Your task to perform on an android device: check the backup settings in the google photos Image 0: 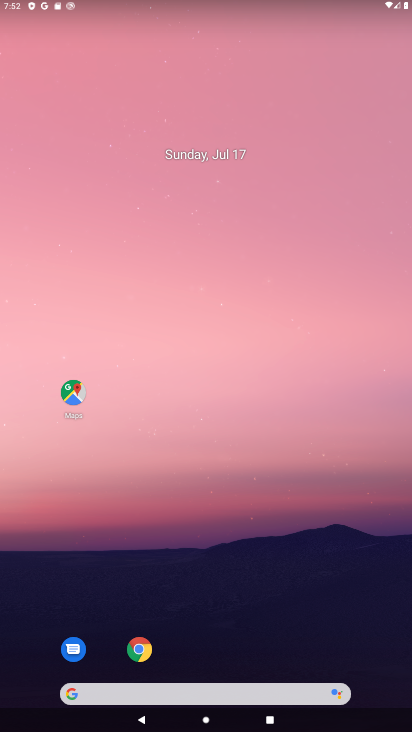
Step 0: drag from (239, 670) to (149, 6)
Your task to perform on an android device: check the backup settings in the google photos Image 1: 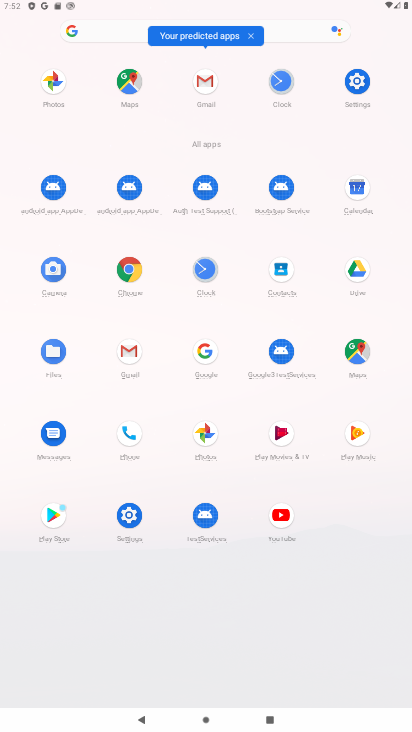
Step 1: click (207, 428)
Your task to perform on an android device: check the backup settings in the google photos Image 2: 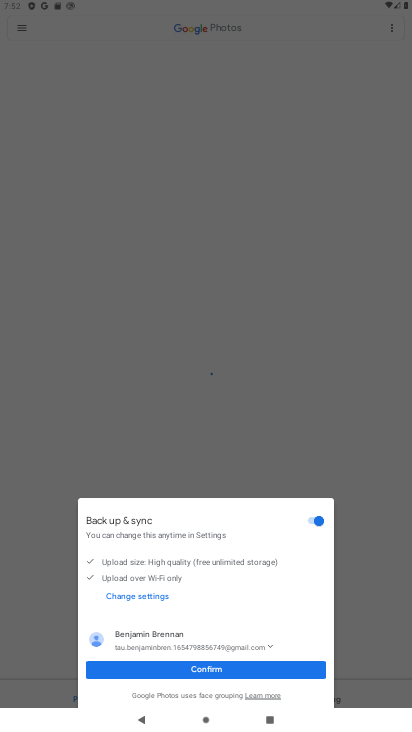
Step 2: drag from (205, 662) to (263, 662)
Your task to perform on an android device: check the backup settings in the google photos Image 3: 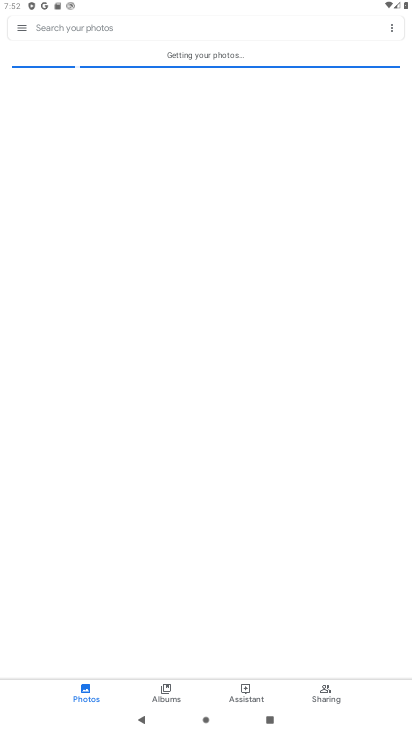
Step 3: click (21, 29)
Your task to perform on an android device: check the backup settings in the google photos Image 4: 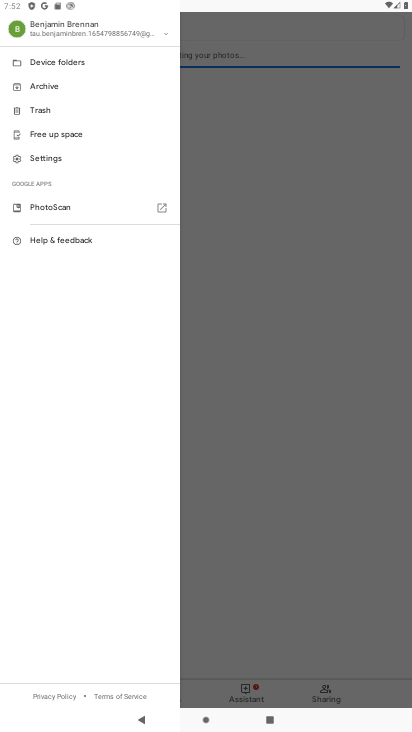
Step 4: click (39, 157)
Your task to perform on an android device: check the backup settings in the google photos Image 5: 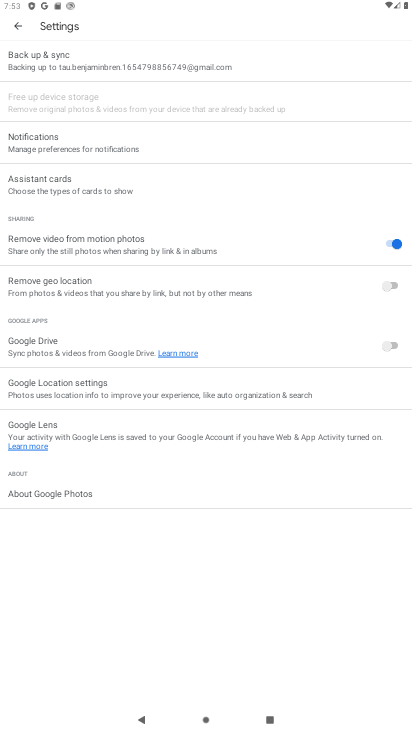
Step 5: click (40, 61)
Your task to perform on an android device: check the backup settings in the google photos Image 6: 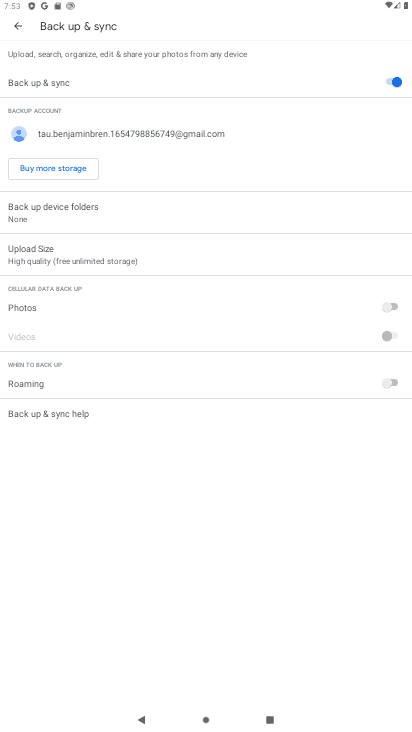
Step 6: task complete